Your task to perform on an android device: turn pop-ups on in chrome Image 0: 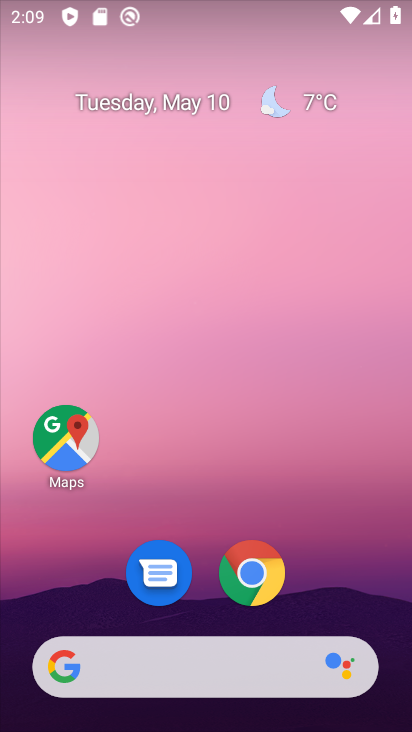
Step 0: click (240, 570)
Your task to perform on an android device: turn pop-ups on in chrome Image 1: 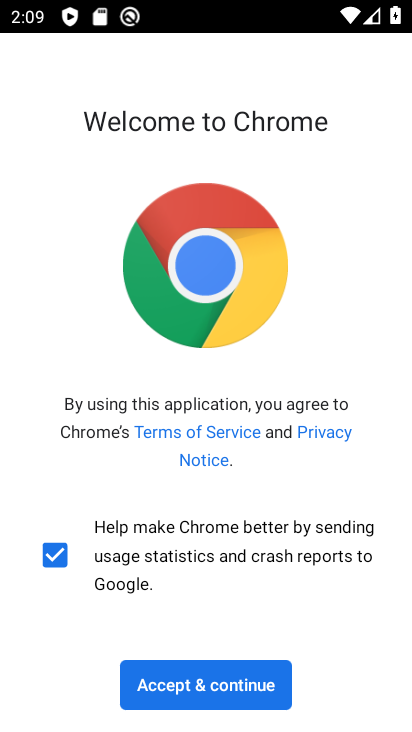
Step 1: click (223, 676)
Your task to perform on an android device: turn pop-ups on in chrome Image 2: 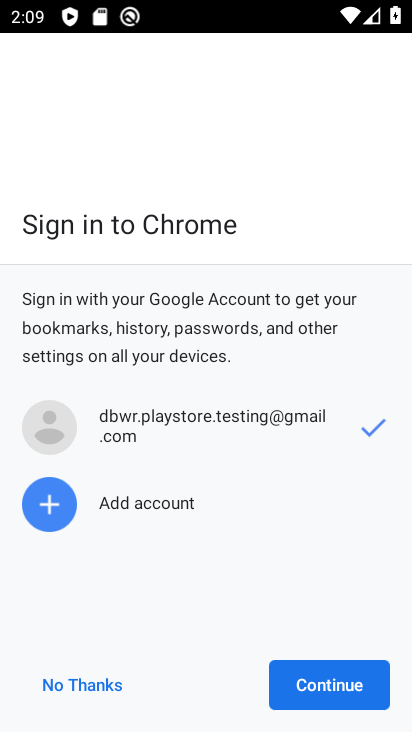
Step 2: click (289, 678)
Your task to perform on an android device: turn pop-ups on in chrome Image 3: 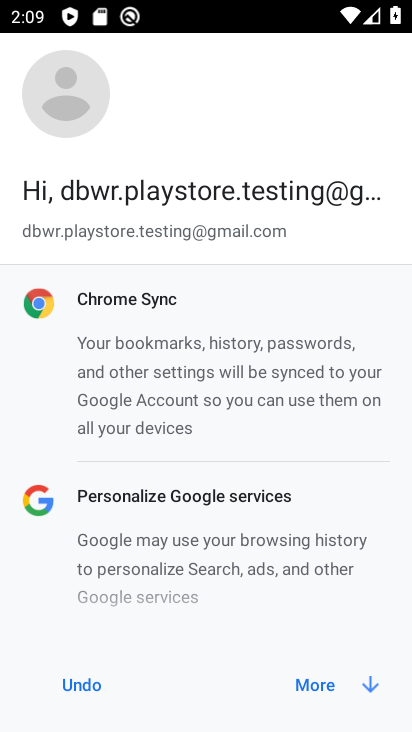
Step 3: click (325, 683)
Your task to perform on an android device: turn pop-ups on in chrome Image 4: 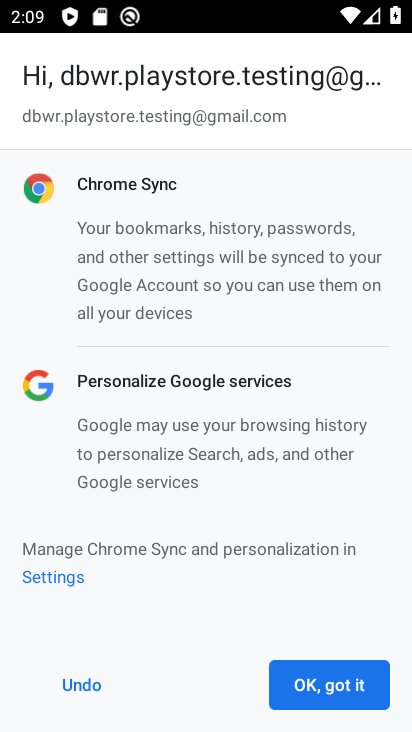
Step 4: click (338, 686)
Your task to perform on an android device: turn pop-ups on in chrome Image 5: 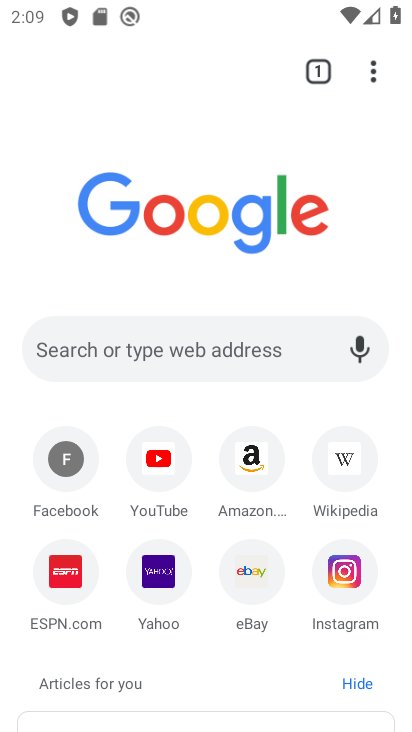
Step 5: click (371, 69)
Your task to perform on an android device: turn pop-ups on in chrome Image 6: 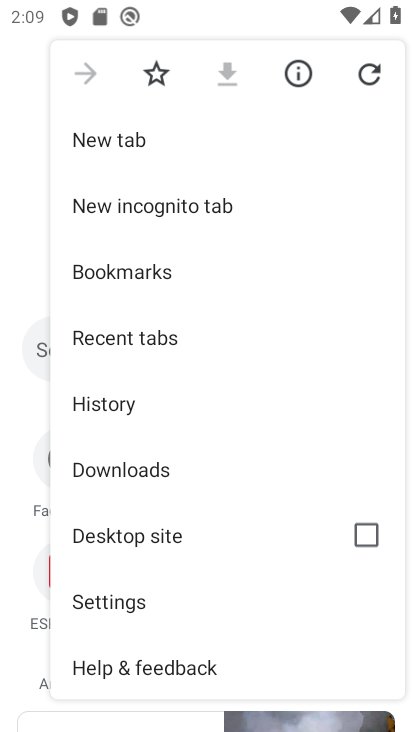
Step 6: click (166, 597)
Your task to perform on an android device: turn pop-ups on in chrome Image 7: 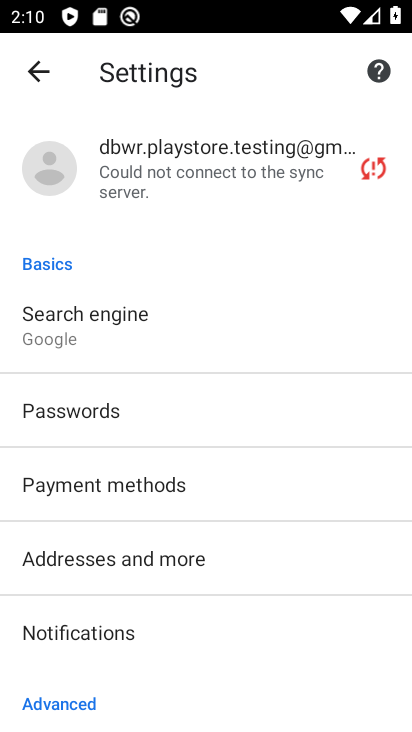
Step 7: drag from (198, 532) to (240, 217)
Your task to perform on an android device: turn pop-ups on in chrome Image 8: 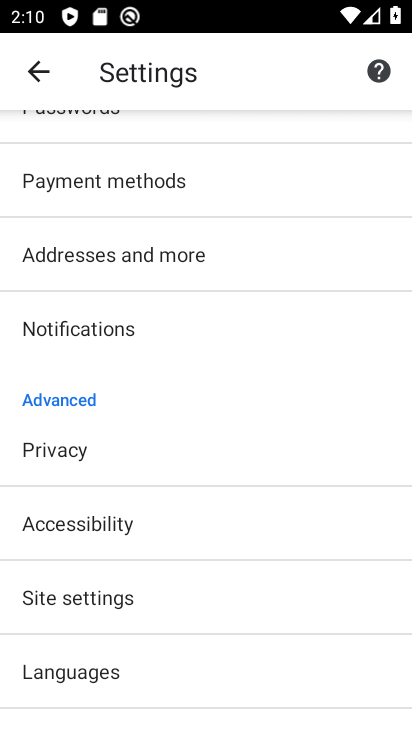
Step 8: click (195, 593)
Your task to perform on an android device: turn pop-ups on in chrome Image 9: 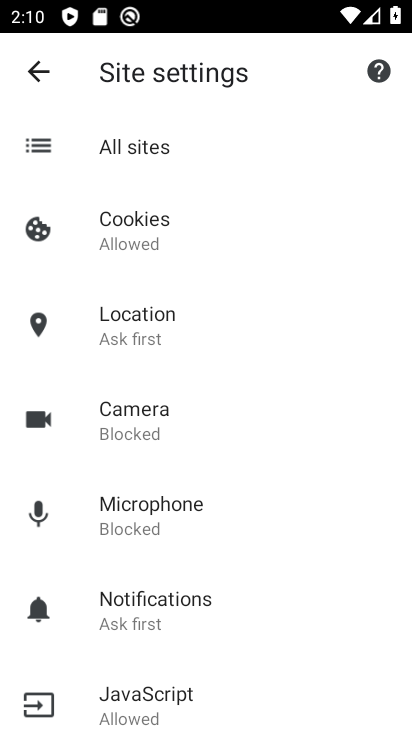
Step 9: drag from (246, 613) to (270, 293)
Your task to perform on an android device: turn pop-ups on in chrome Image 10: 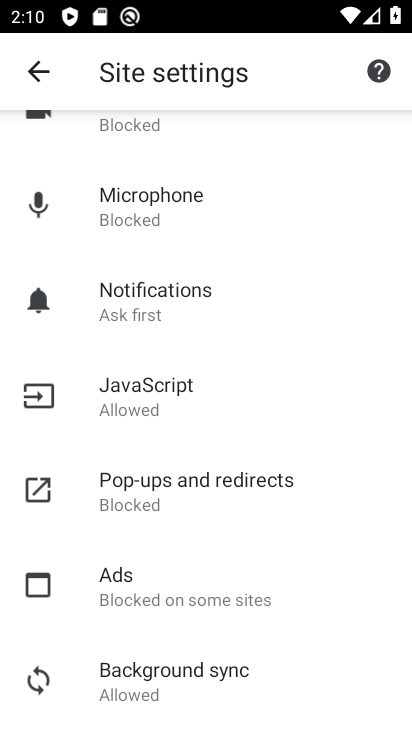
Step 10: click (262, 483)
Your task to perform on an android device: turn pop-ups on in chrome Image 11: 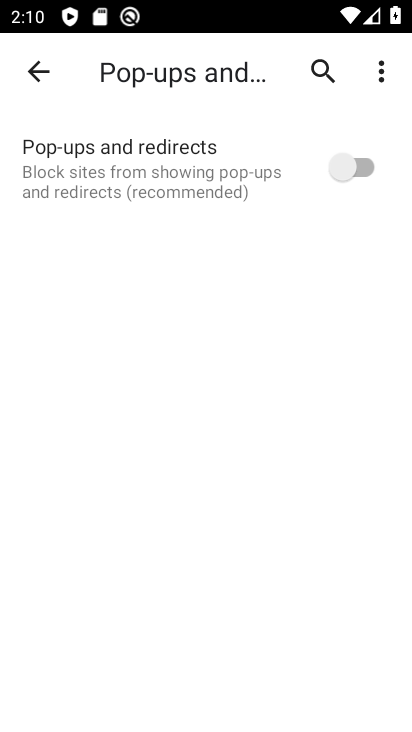
Step 11: click (360, 165)
Your task to perform on an android device: turn pop-ups on in chrome Image 12: 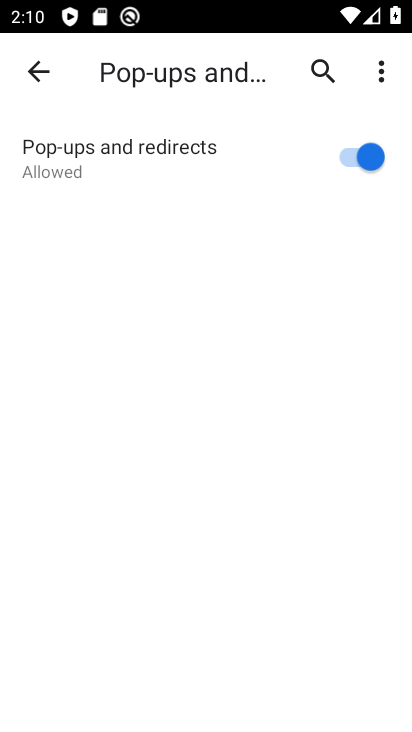
Step 12: task complete